Your task to perform on an android device: show emergency info Image 0: 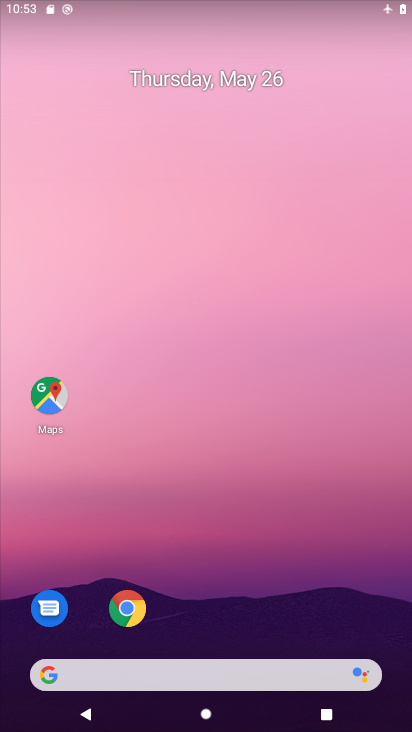
Step 0: drag from (395, 714) to (342, 223)
Your task to perform on an android device: show emergency info Image 1: 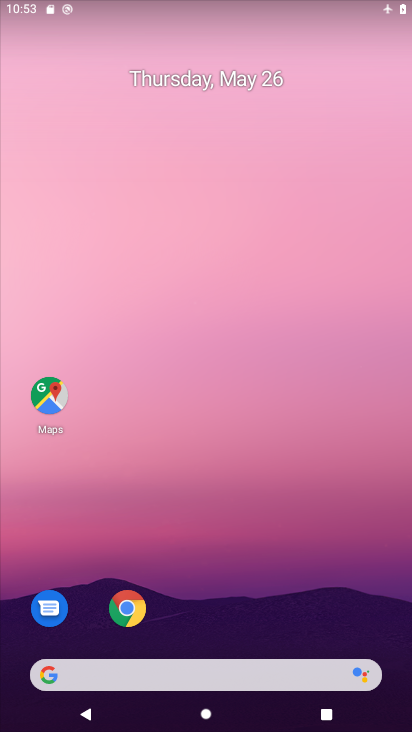
Step 1: drag from (384, 644) to (336, 239)
Your task to perform on an android device: show emergency info Image 2: 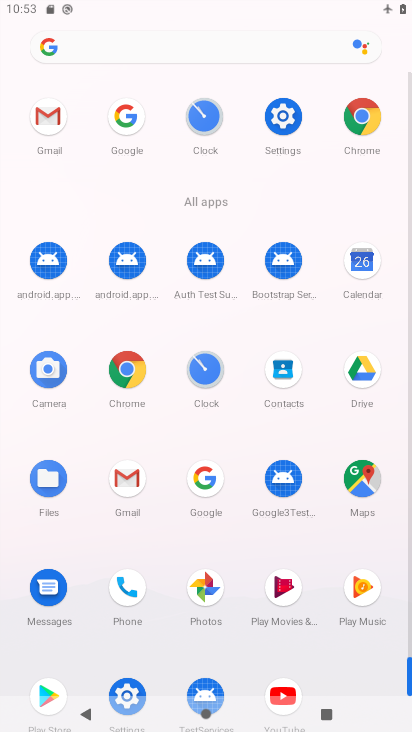
Step 2: click (293, 109)
Your task to perform on an android device: show emergency info Image 3: 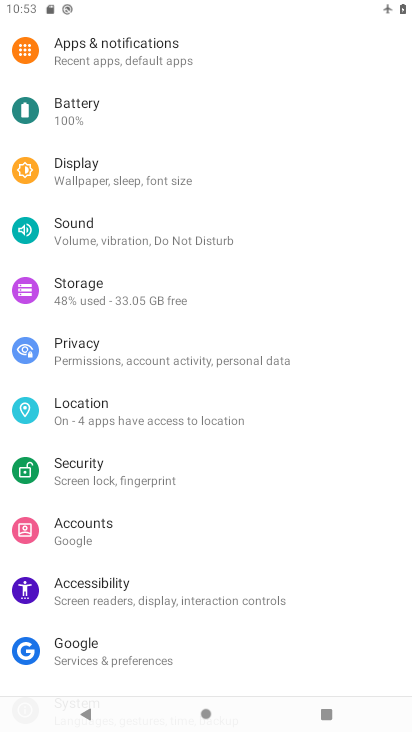
Step 3: drag from (256, 660) to (235, 283)
Your task to perform on an android device: show emergency info Image 4: 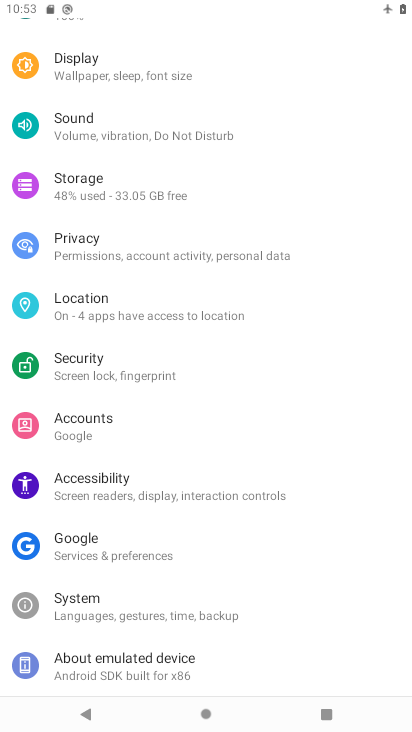
Step 4: click (130, 668)
Your task to perform on an android device: show emergency info Image 5: 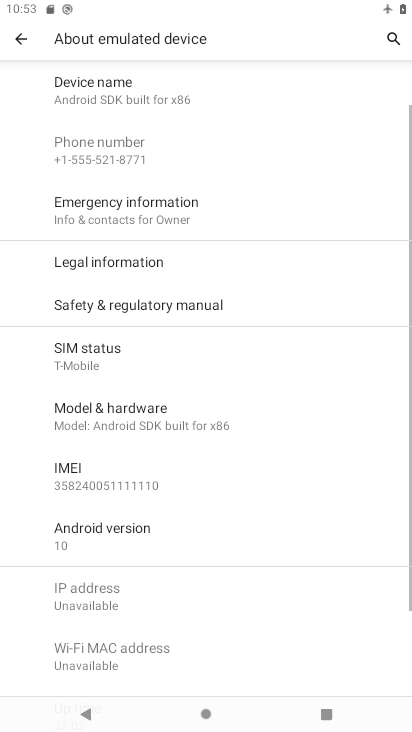
Step 5: click (140, 210)
Your task to perform on an android device: show emergency info Image 6: 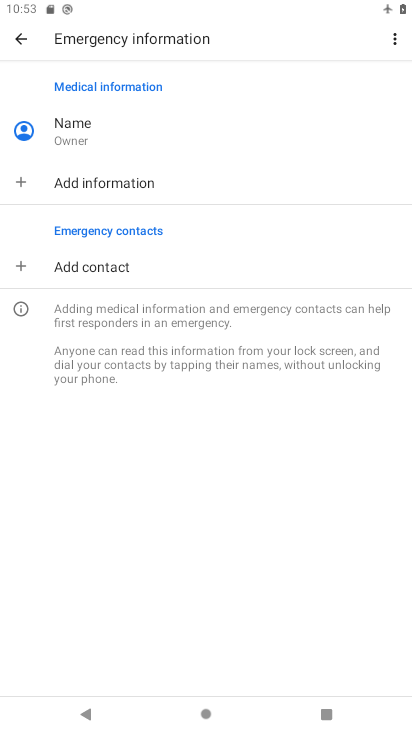
Step 6: click (245, 16)
Your task to perform on an android device: show emergency info Image 7: 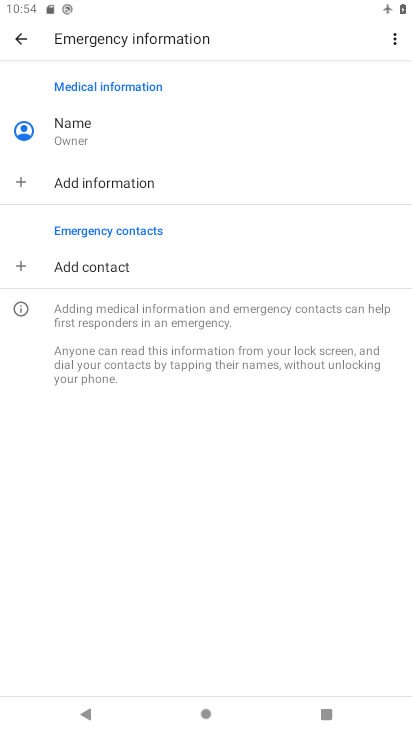
Step 7: task complete